Your task to perform on an android device: See recent photos Image 0: 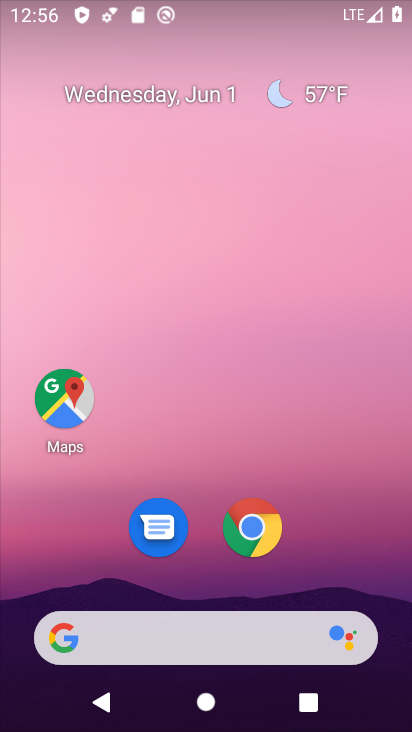
Step 0: drag from (195, 636) to (210, 185)
Your task to perform on an android device: See recent photos Image 1: 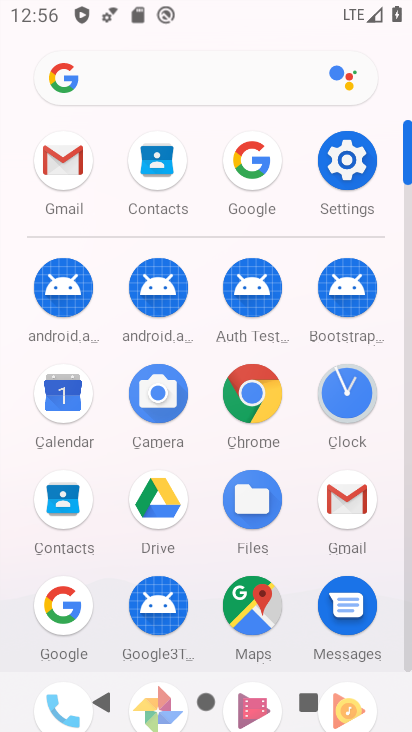
Step 1: drag from (129, 653) to (144, 111)
Your task to perform on an android device: See recent photos Image 2: 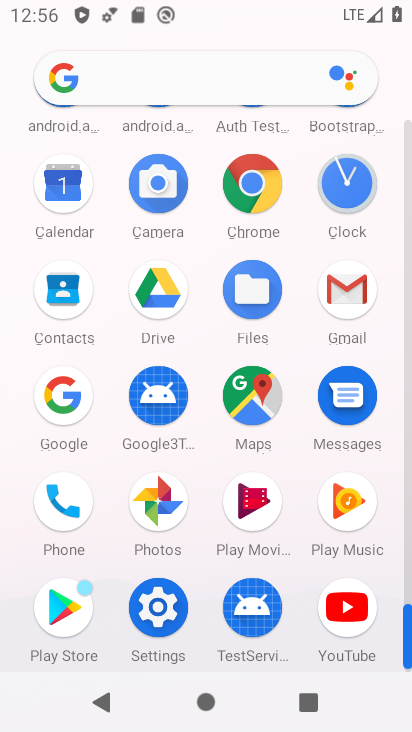
Step 2: click (176, 495)
Your task to perform on an android device: See recent photos Image 3: 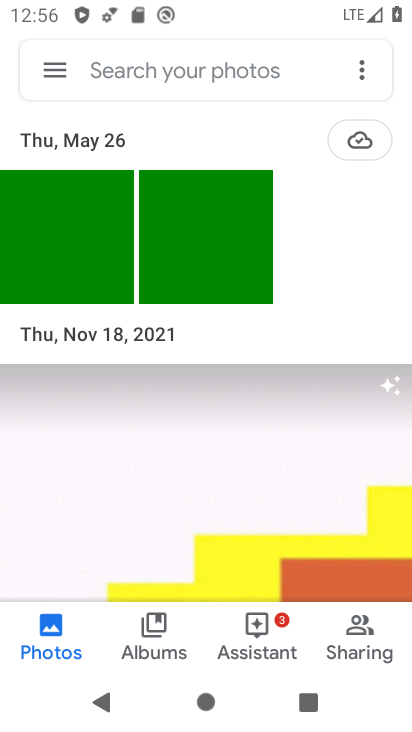
Step 3: task complete